Your task to perform on an android device: Do I have any events this weekend? Image 0: 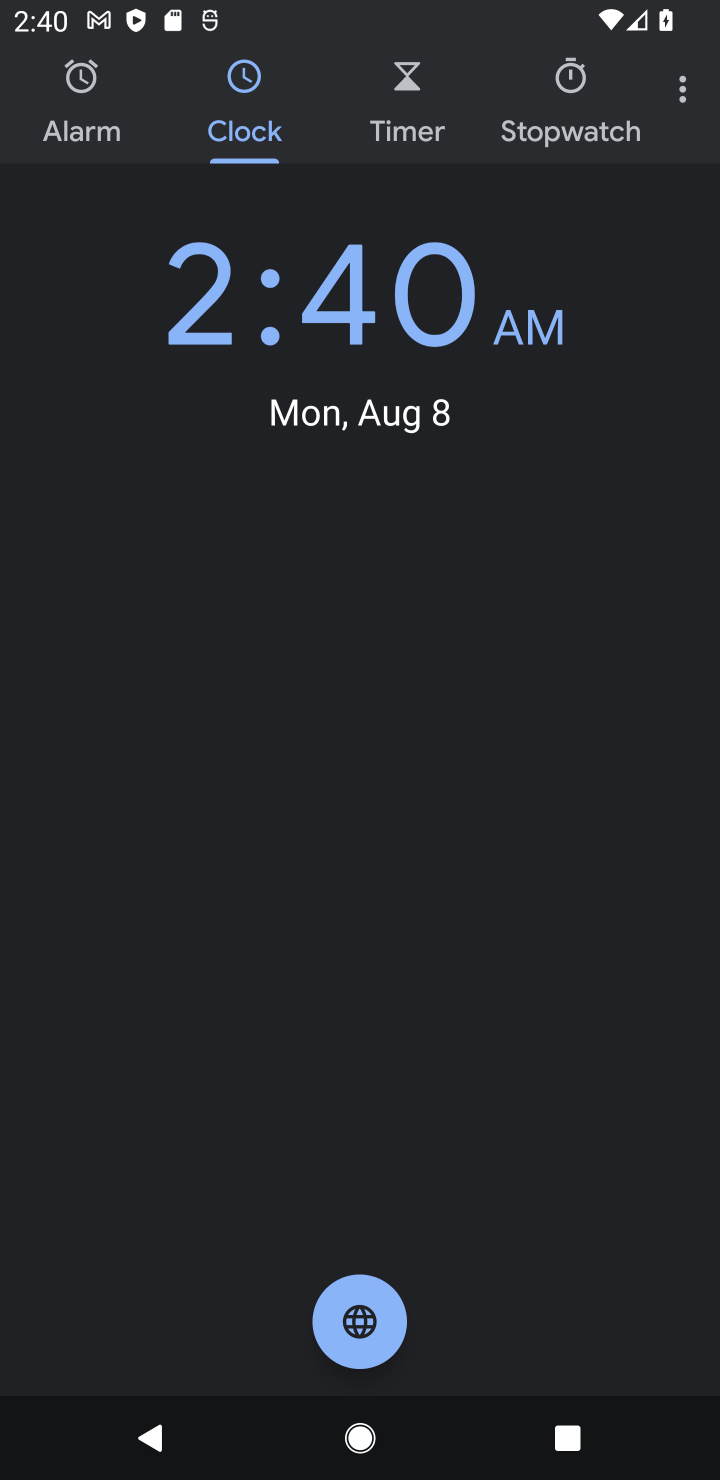
Step 0: press home button
Your task to perform on an android device: Do I have any events this weekend? Image 1: 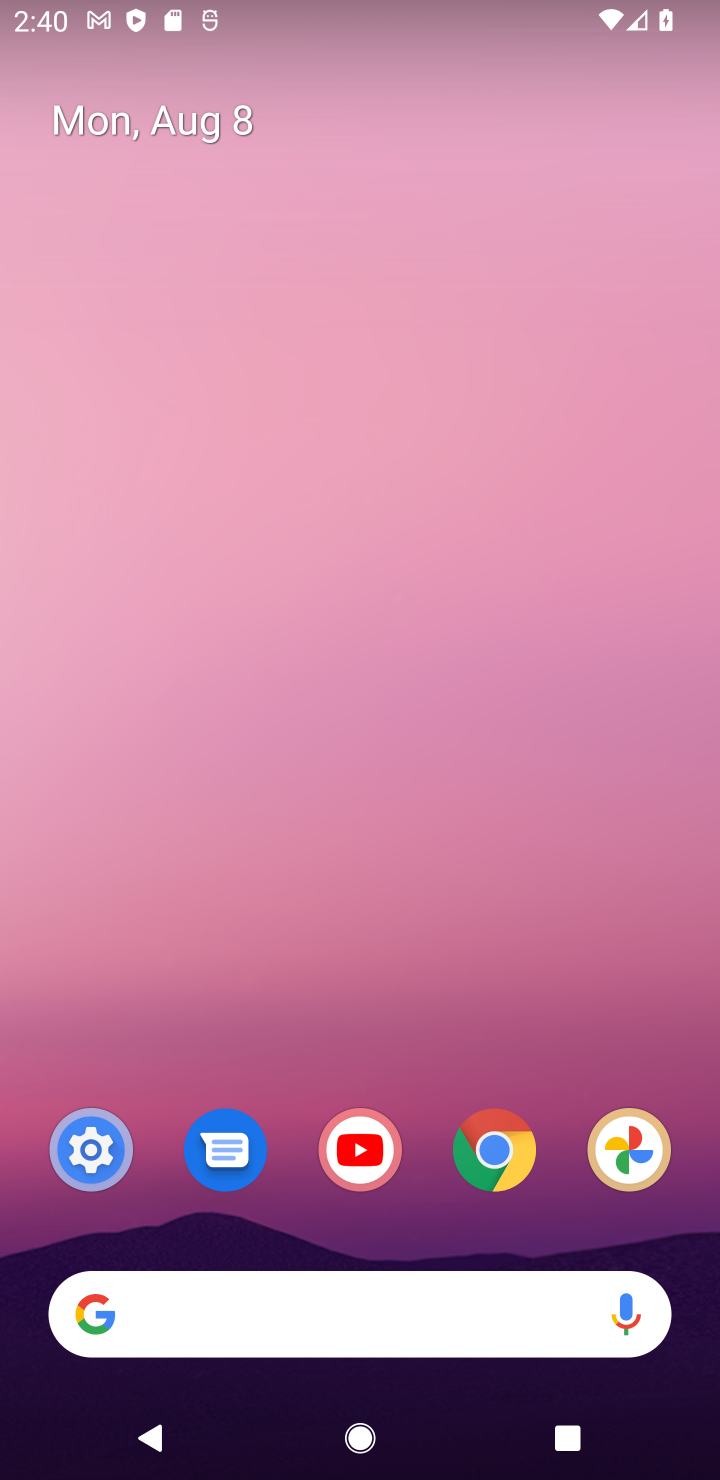
Step 1: drag from (403, 1234) to (490, 23)
Your task to perform on an android device: Do I have any events this weekend? Image 2: 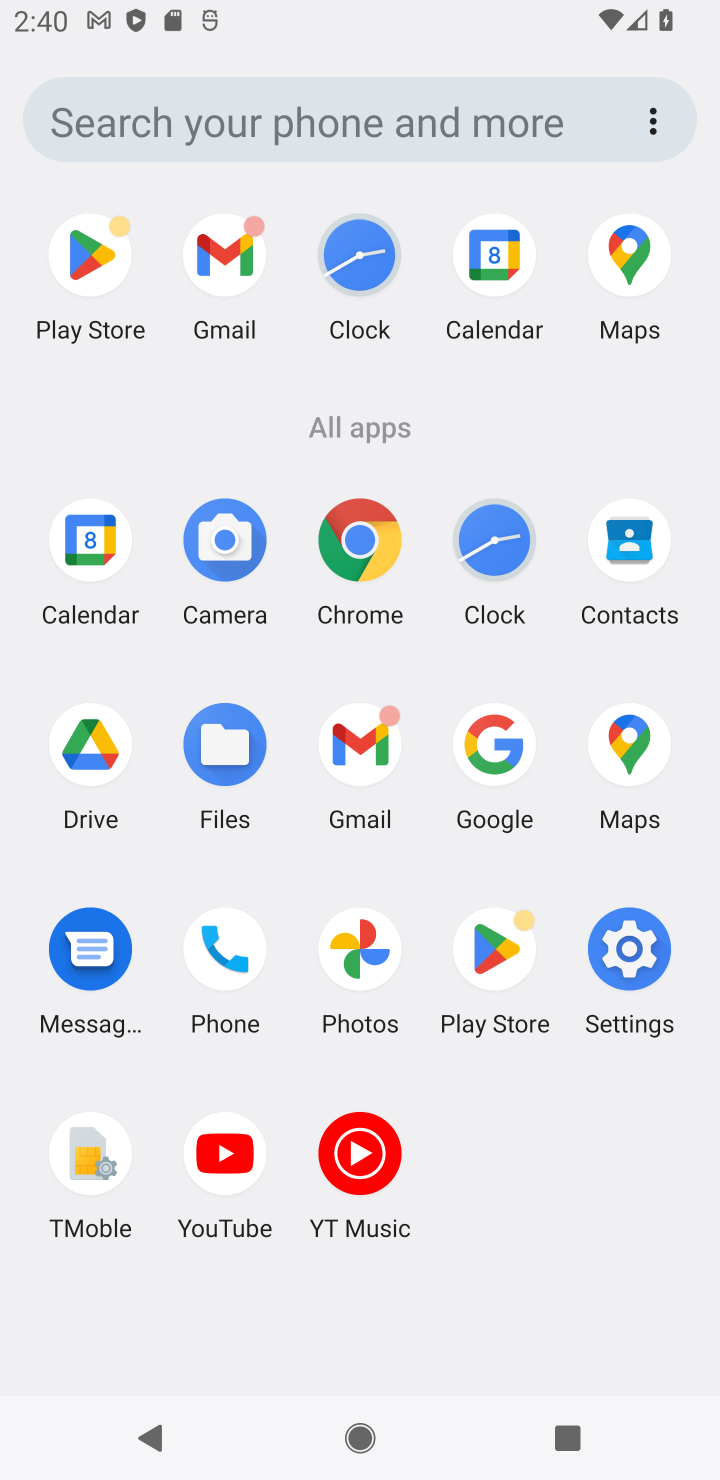
Step 2: click (487, 238)
Your task to perform on an android device: Do I have any events this weekend? Image 3: 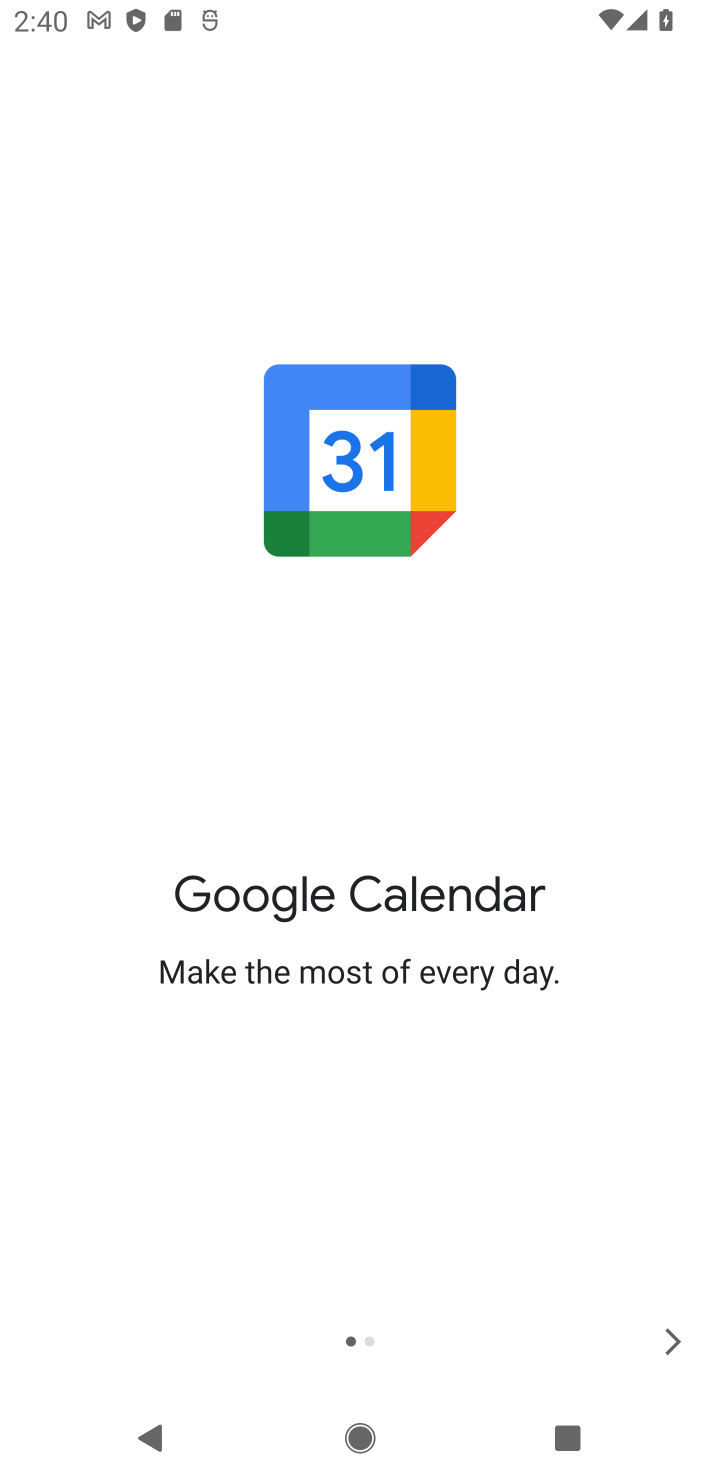
Step 3: click (654, 1365)
Your task to perform on an android device: Do I have any events this weekend? Image 4: 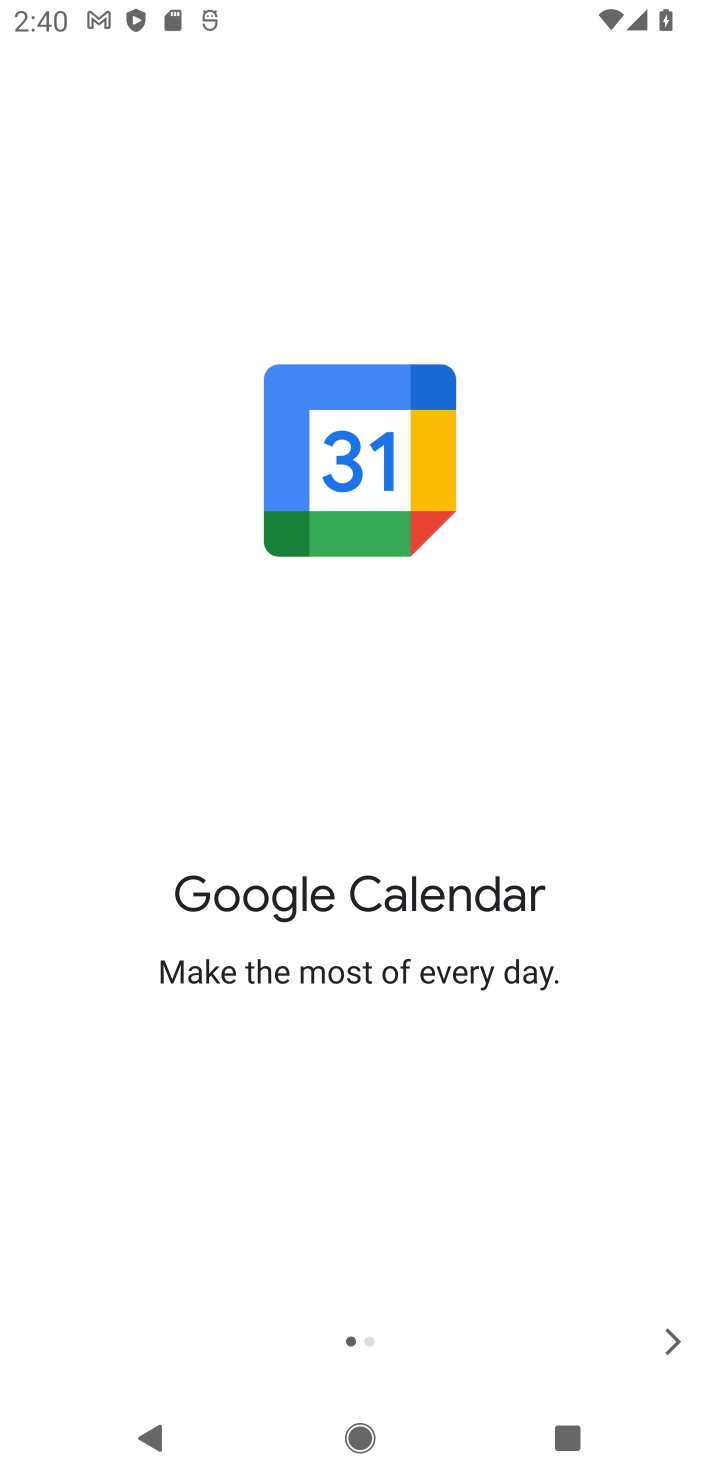
Step 4: click (654, 1365)
Your task to perform on an android device: Do I have any events this weekend? Image 5: 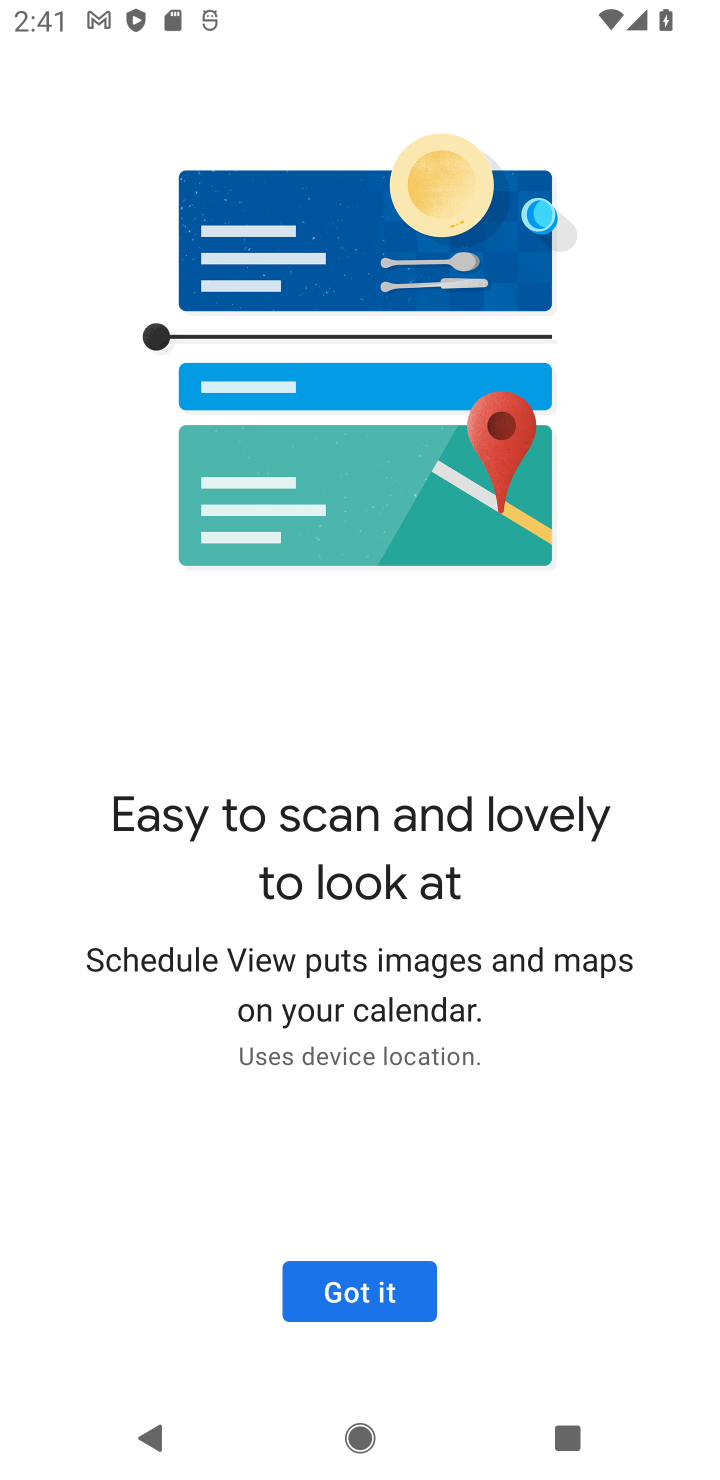
Step 5: click (370, 1274)
Your task to perform on an android device: Do I have any events this weekend? Image 6: 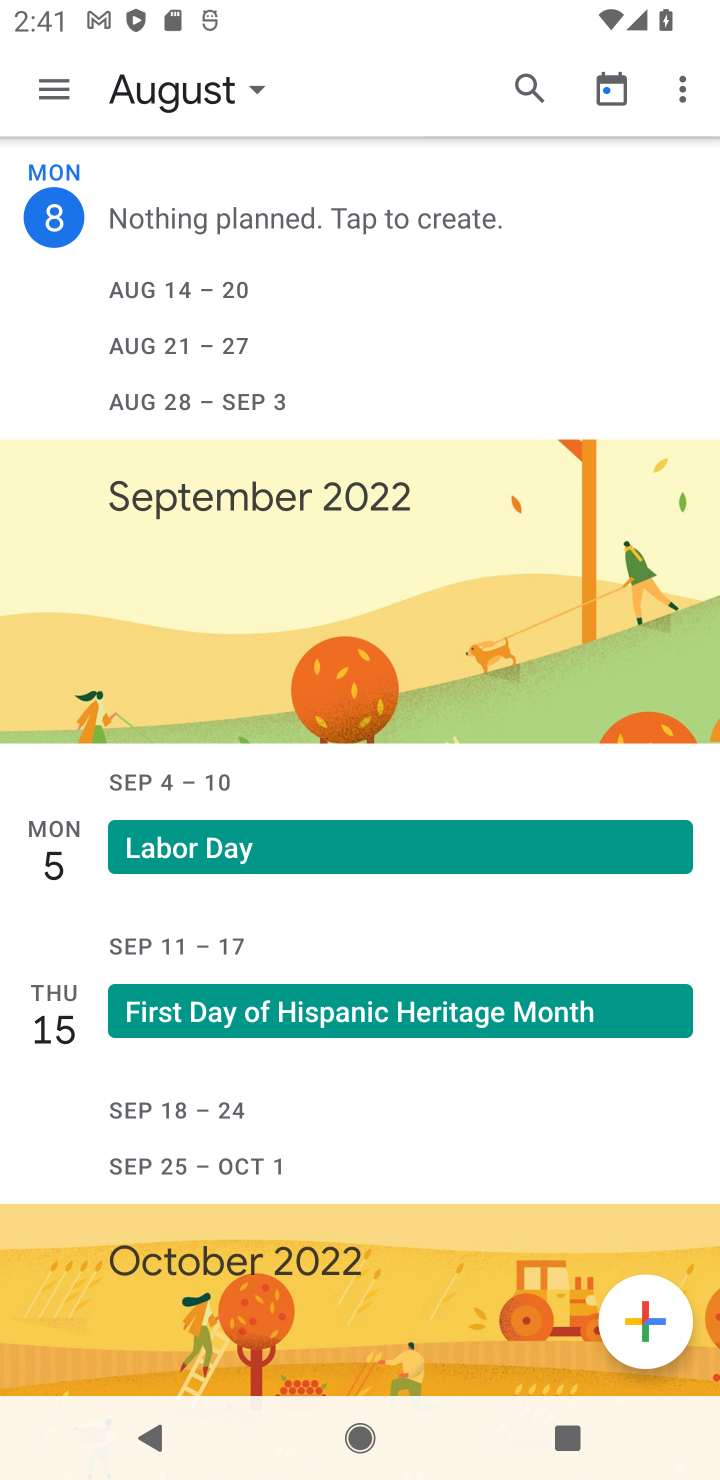
Step 6: task complete